Your task to perform on an android device: see creations saved in the google photos Image 0: 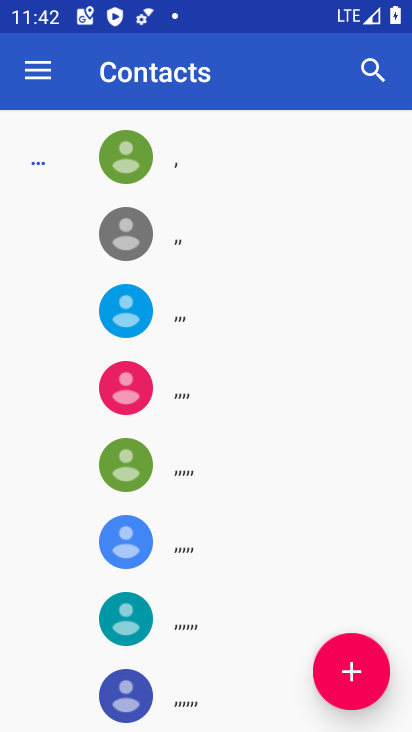
Step 0: press home button
Your task to perform on an android device: see creations saved in the google photos Image 1: 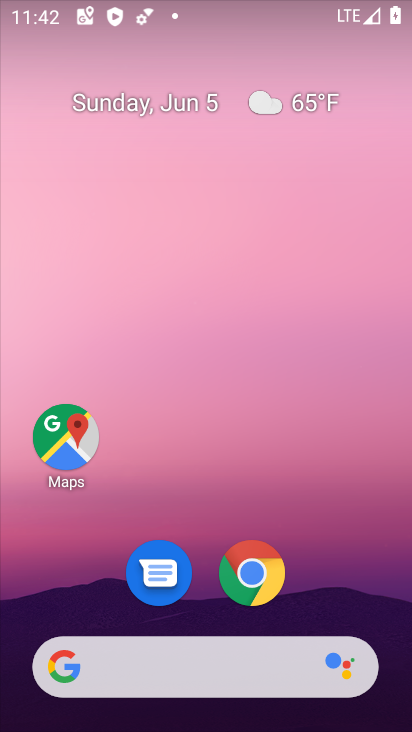
Step 1: drag from (218, 345) to (270, 86)
Your task to perform on an android device: see creations saved in the google photos Image 2: 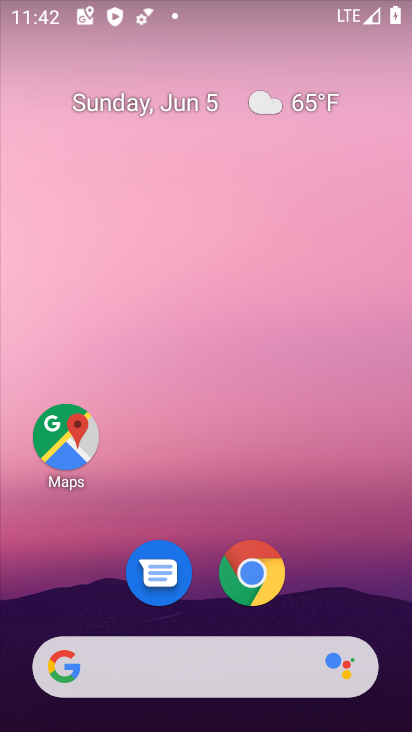
Step 2: drag from (218, 616) to (202, 74)
Your task to perform on an android device: see creations saved in the google photos Image 3: 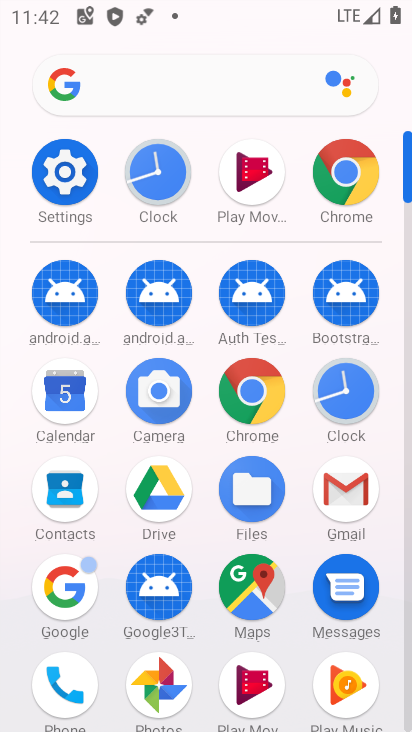
Step 3: click (173, 680)
Your task to perform on an android device: see creations saved in the google photos Image 4: 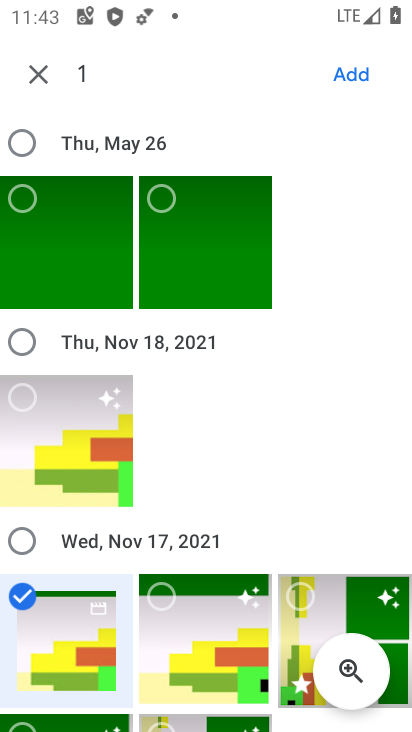
Step 4: press back button
Your task to perform on an android device: see creations saved in the google photos Image 5: 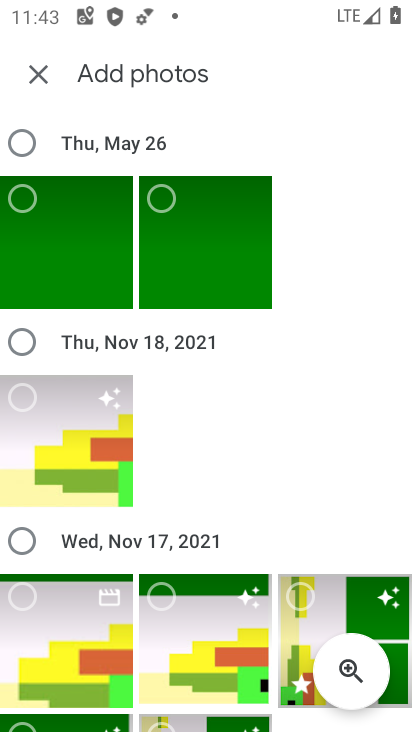
Step 5: press back button
Your task to perform on an android device: see creations saved in the google photos Image 6: 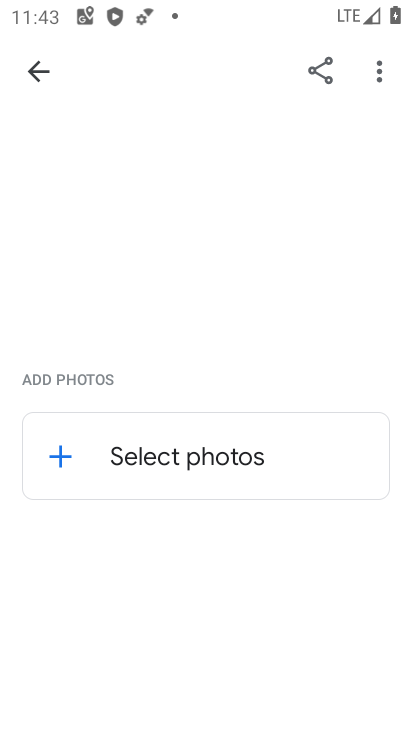
Step 6: press back button
Your task to perform on an android device: see creations saved in the google photos Image 7: 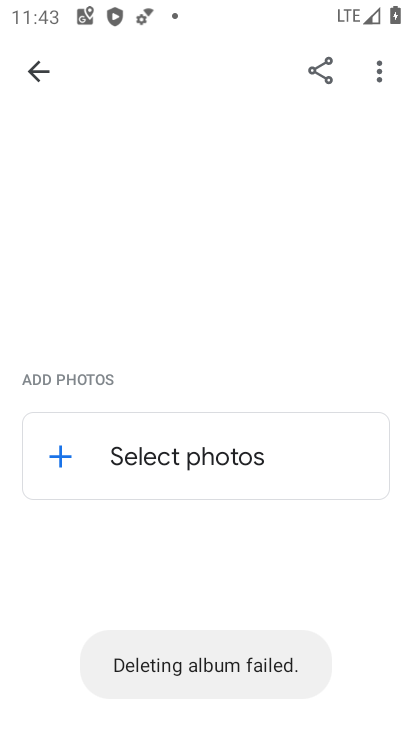
Step 7: press back button
Your task to perform on an android device: see creations saved in the google photos Image 8: 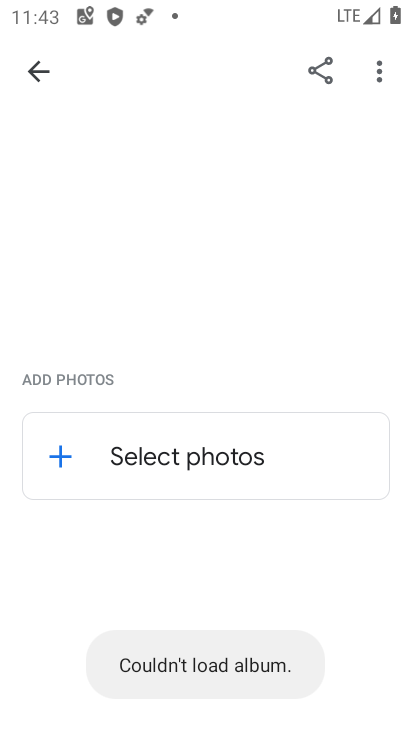
Step 8: click (30, 70)
Your task to perform on an android device: see creations saved in the google photos Image 9: 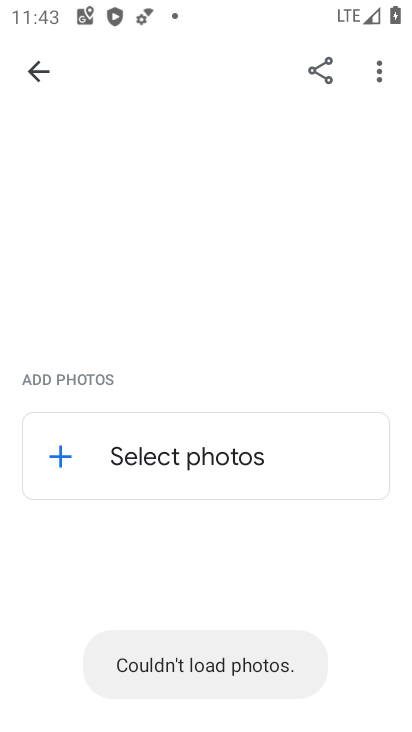
Step 9: task complete